Your task to perform on an android device: check storage Image 0: 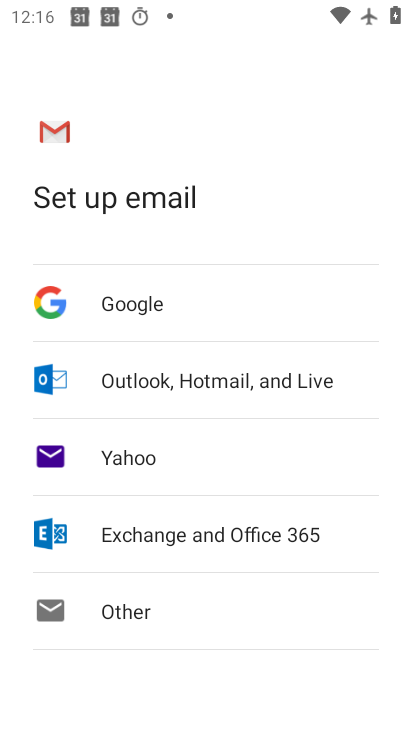
Step 0: press home button
Your task to perform on an android device: check storage Image 1: 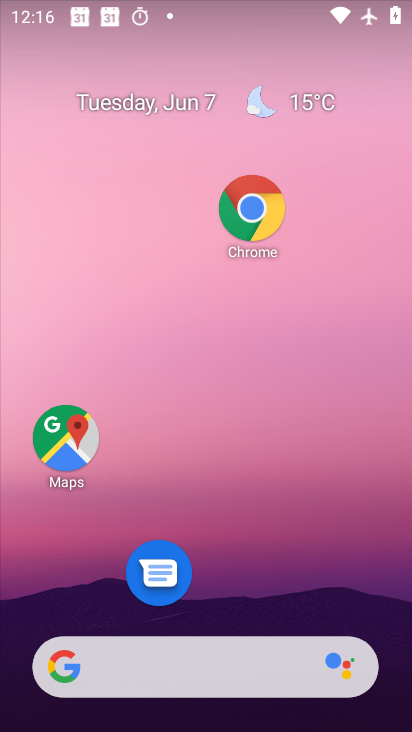
Step 1: drag from (223, 603) to (202, 257)
Your task to perform on an android device: check storage Image 2: 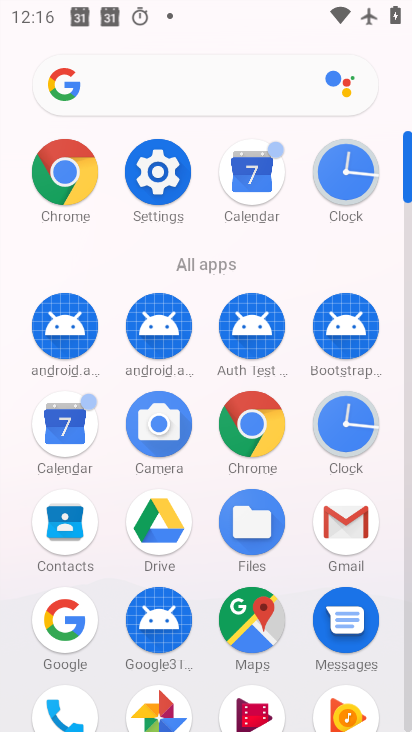
Step 2: click (145, 177)
Your task to perform on an android device: check storage Image 3: 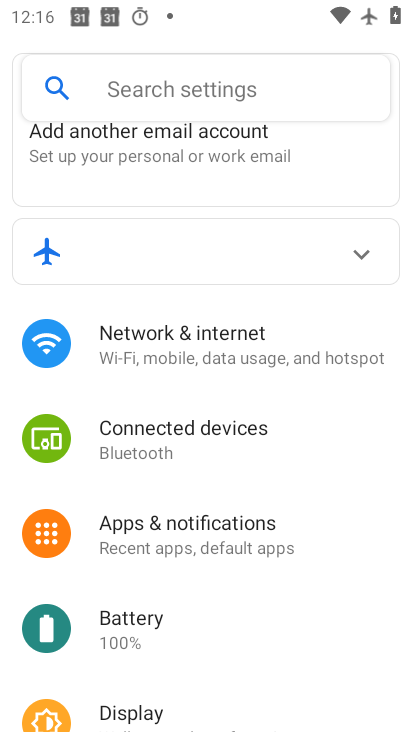
Step 3: drag from (228, 466) to (223, 228)
Your task to perform on an android device: check storage Image 4: 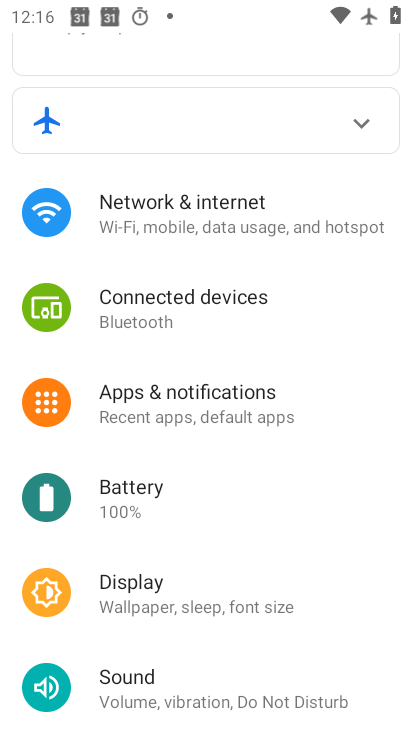
Step 4: drag from (225, 532) to (236, 256)
Your task to perform on an android device: check storage Image 5: 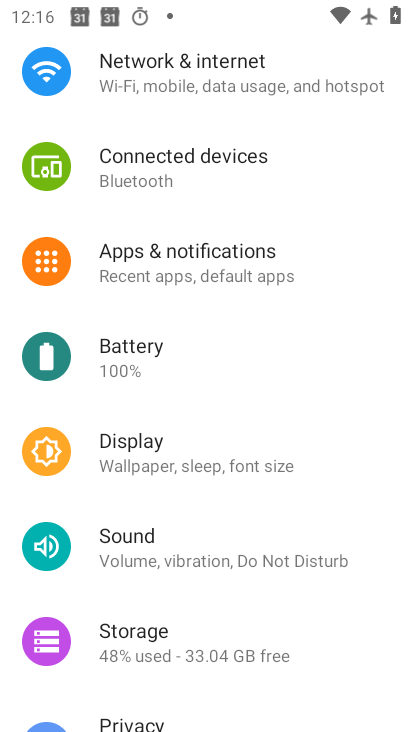
Step 5: click (164, 633)
Your task to perform on an android device: check storage Image 6: 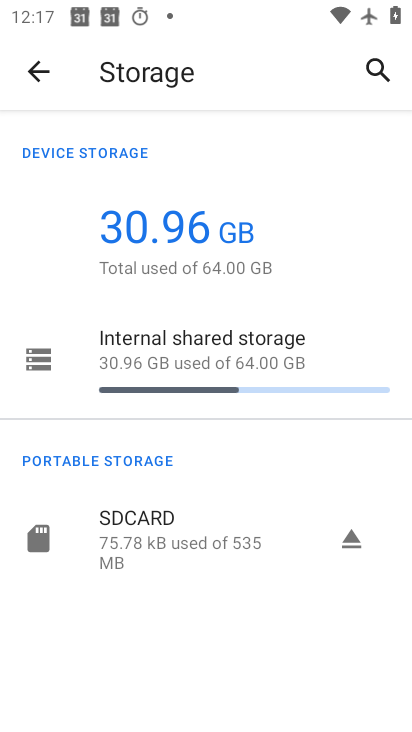
Step 6: task complete